Your task to perform on an android device: Open calendar and show me the third week of next month Image 0: 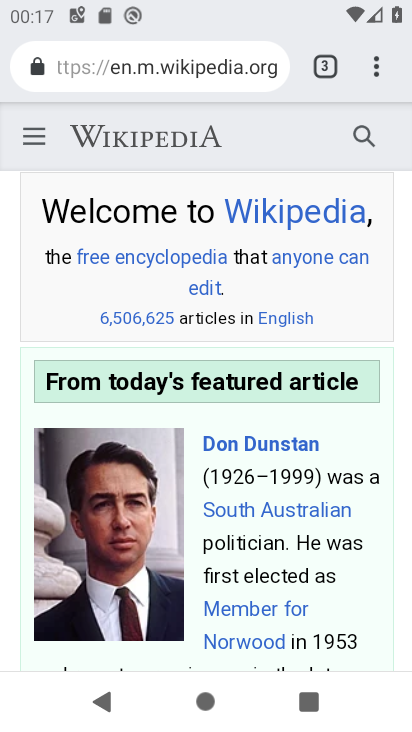
Step 0: press home button
Your task to perform on an android device: Open calendar and show me the third week of next month Image 1: 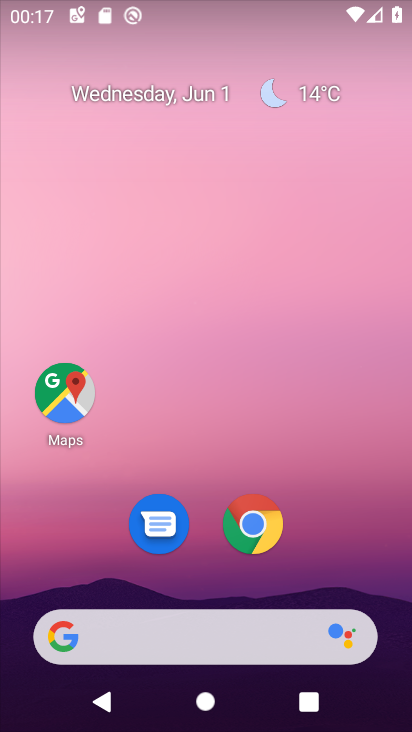
Step 1: drag from (305, 550) to (309, 29)
Your task to perform on an android device: Open calendar and show me the third week of next month Image 2: 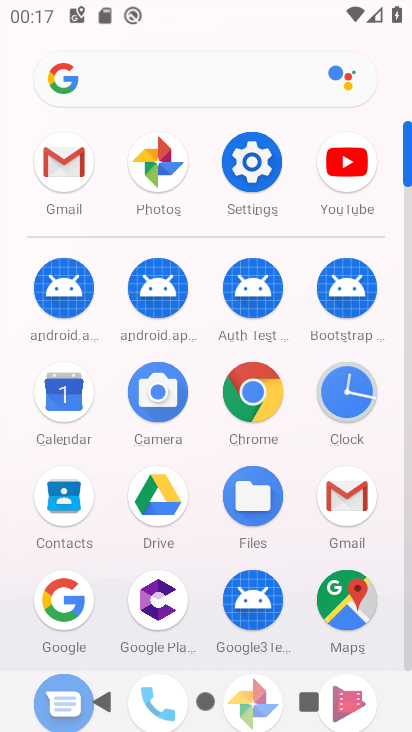
Step 2: click (73, 402)
Your task to perform on an android device: Open calendar and show me the third week of next month Image 3: 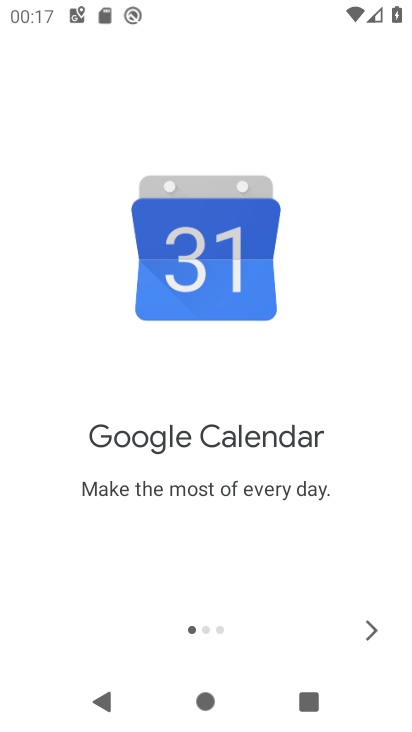
Step 3: click (365, 632)
Your task to perform on an android device: Open calendar and show me the third week of next month Image 4: 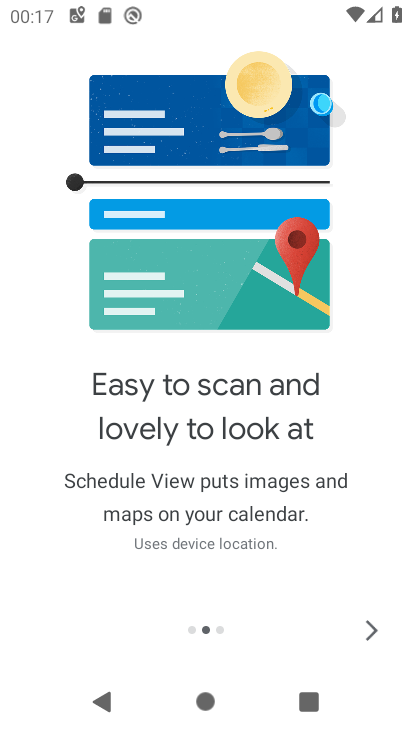
Step 4: click (365, 630)
Your task to perform on an android device: Open calendar and show me the third week of next month Image 5: 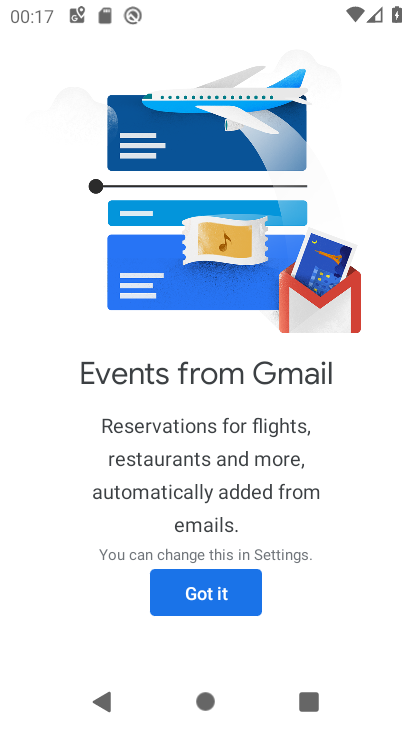
Step 5: click (240, 584)
Your task to perform on an android device: Open calendar and show me the third week of next month Image 6: 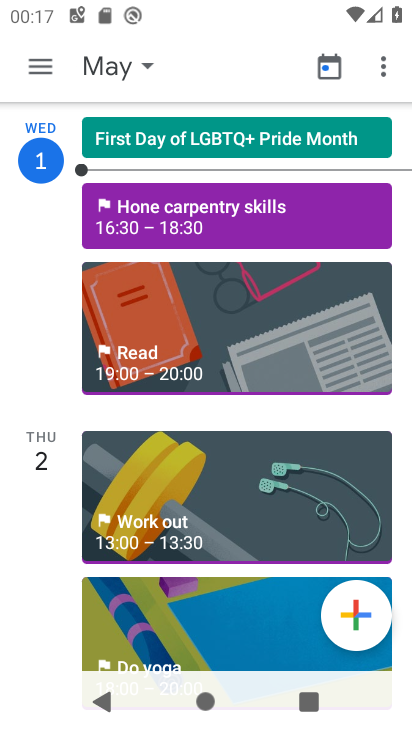
Step 6: click (44, 66)
Your task to perform on an android device: Open calendar and show me the third week of next month Image 7: 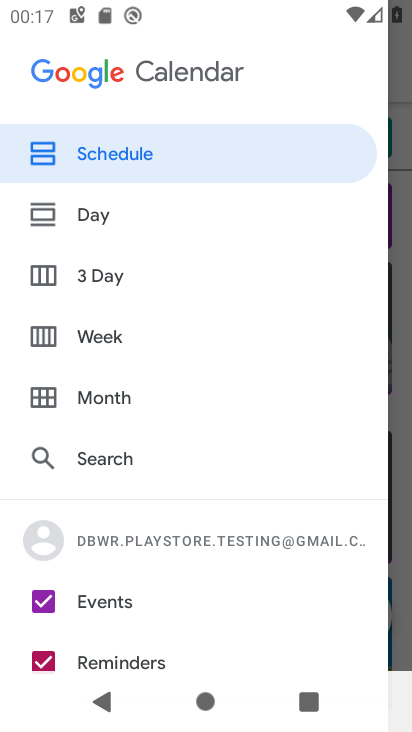
Step 7: click (43, 389)
Your task to perform on an android device: Open calendar and show me the third week of next month Image 8: 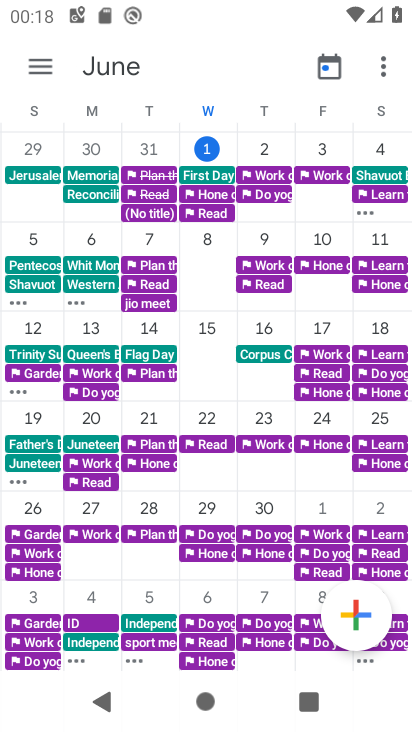
Step 8: drag from (370, 311) to (0, 374)
Your task to perform on an android device: Open calendar and show me the third week of next month Image 9: 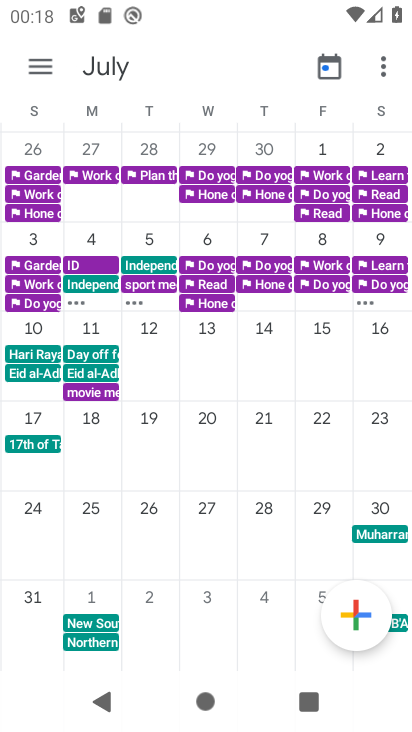
Step 9: click (39, 415)
Your task to perform on an android device: Open calendar and show me the third week of next month Image 10: 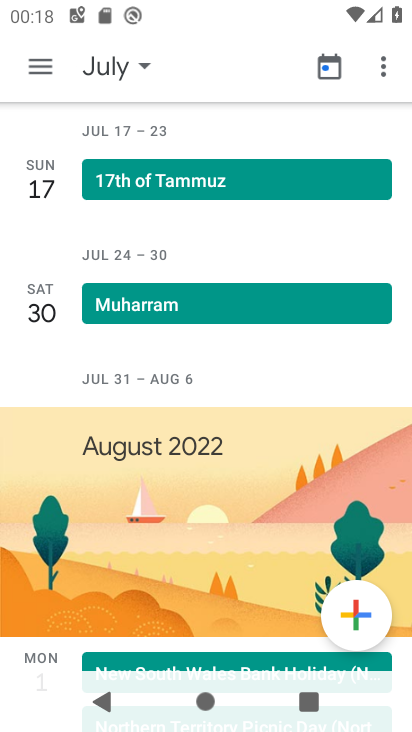
Step 10: click (36, 60)
Your task to perform on an android device: Open calendar and show me the third week of next month Image 11: 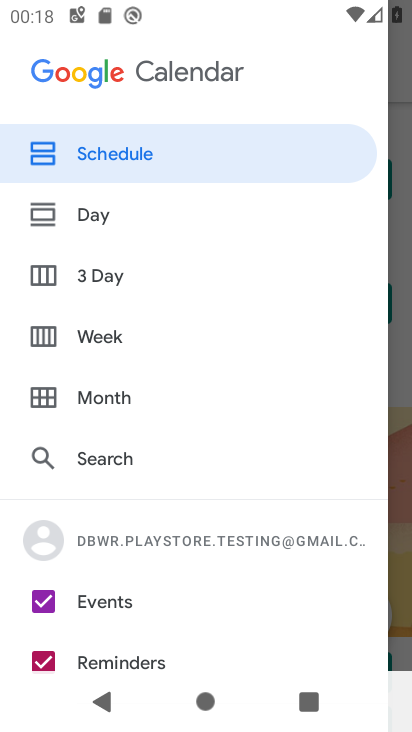
Step 11: click (51, 338)
Your task to perform on an android device: Open calendar and show me the third week of next month Image 12: 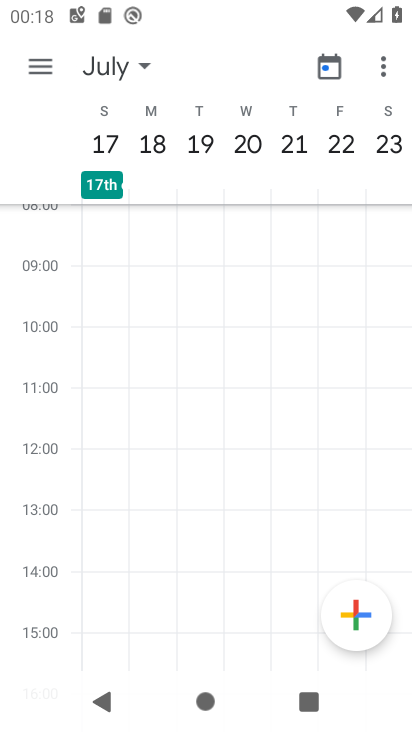
Step 12: task complete